Your task to perform on an android device: add a contact Image 0: 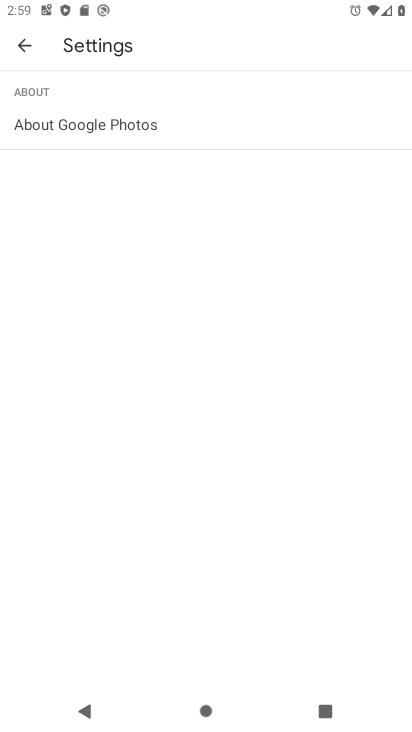
Step 0: press home button
Your task to perform on an android device: add a contact Image 1: 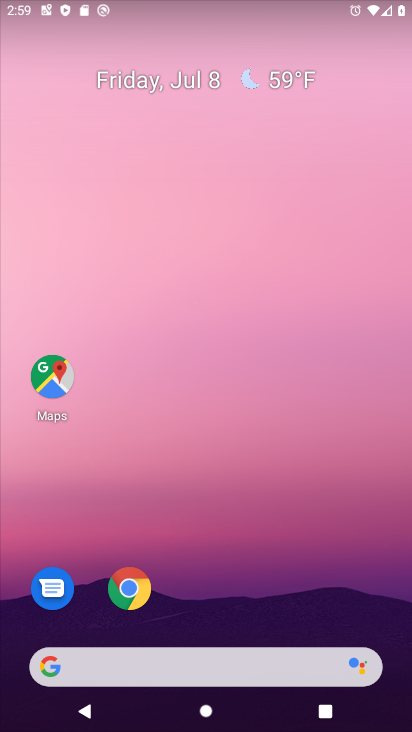
Step 1: drag from (198, 566) to (127, 2)
Your task to perform on an android device: add a contact Image 2: 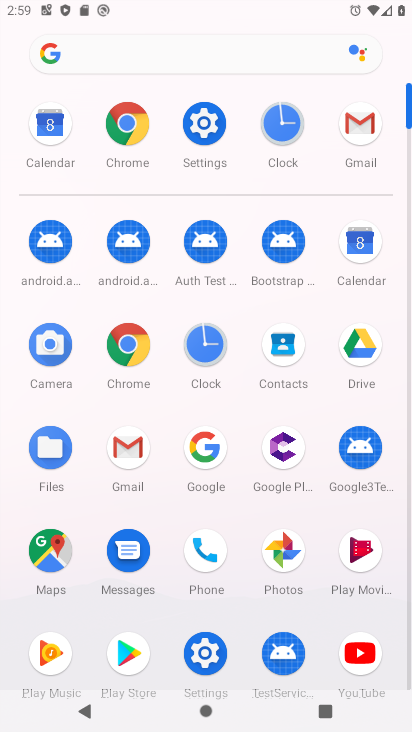
Step 2: click (295, 354)
Your task to perform on an android device: add a contact Image 3: 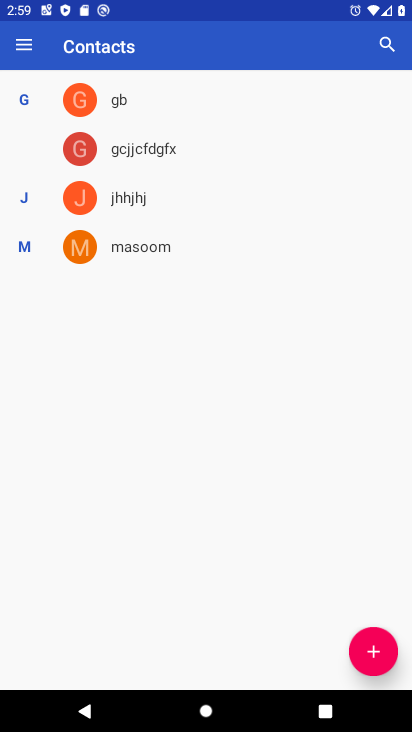
Step 3: click (363, 661)
Your task to perform on an android device: add a contact Image 4: 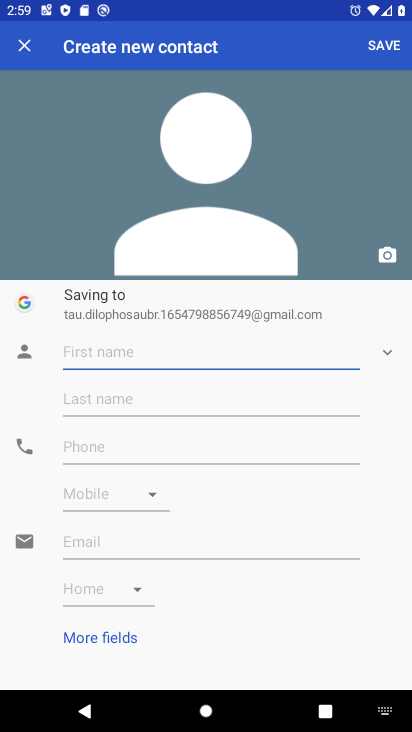
Step 4: type ""
Your task to perform on an android device: add a contact Image 5: 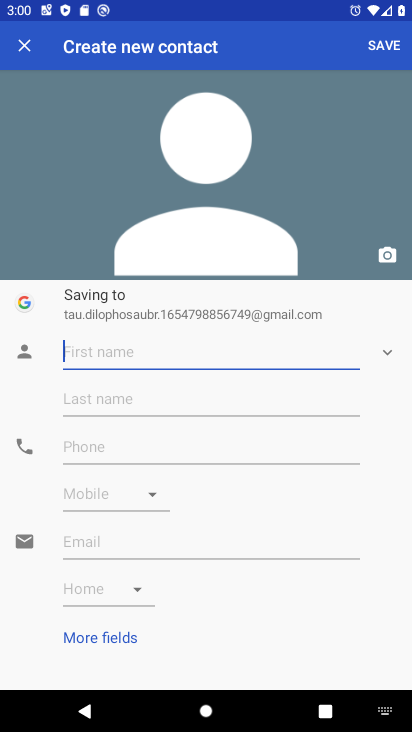
Step 5: type "blew"
Your task to perform on an android device: add a contact Image 6: 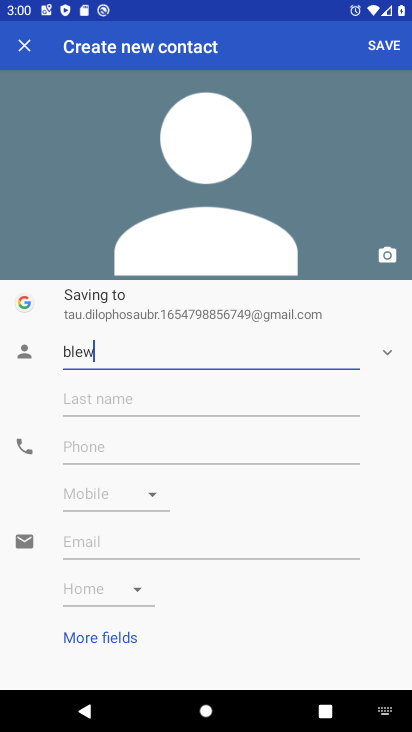
Step 6: click (384, 42)
Your task to perform on an android device: add a contact Image 7: 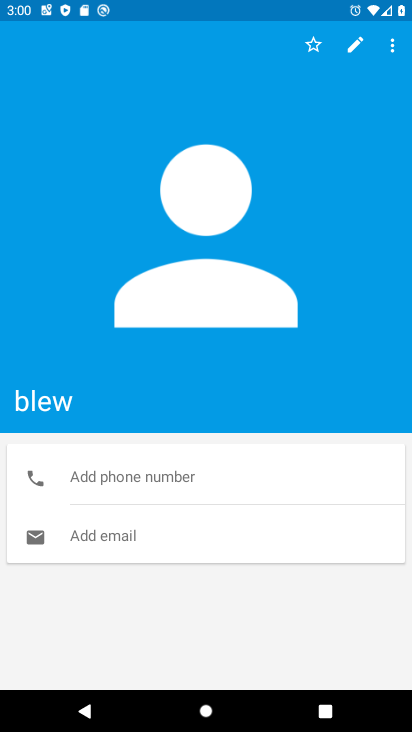
Step 7: task complete